Your task to perform on an android device: toggle wifi Image 0: 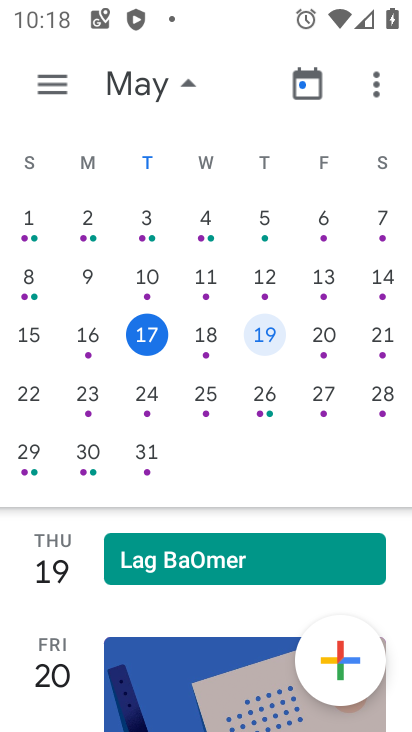
Step 0: task complete